Your task to perform on an android device: turn on airplane mode Image 0: 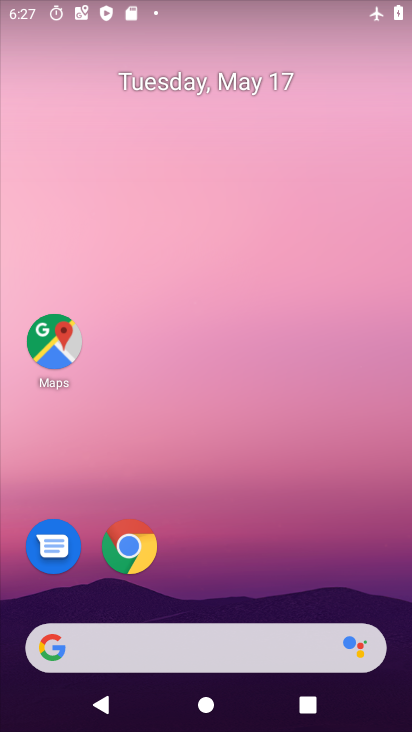
Step 0: click (185, 212)
Your task to perform on an android device: turn on airplane mode Image 1: 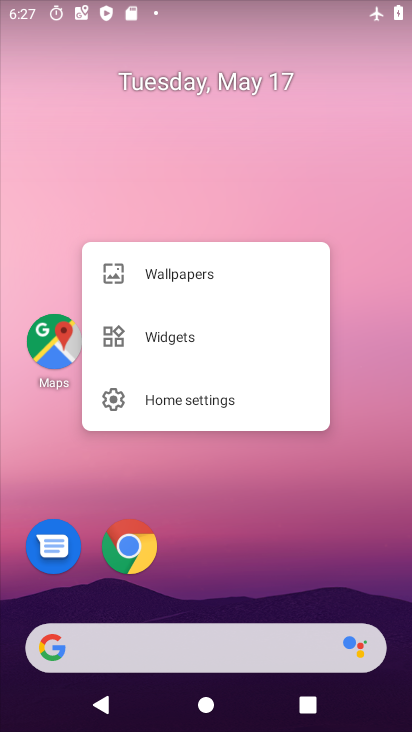
Step 1: drag from (224, 482) to (197, 259)
Your task to perform on an android device: turn on airplane mode Image 2: 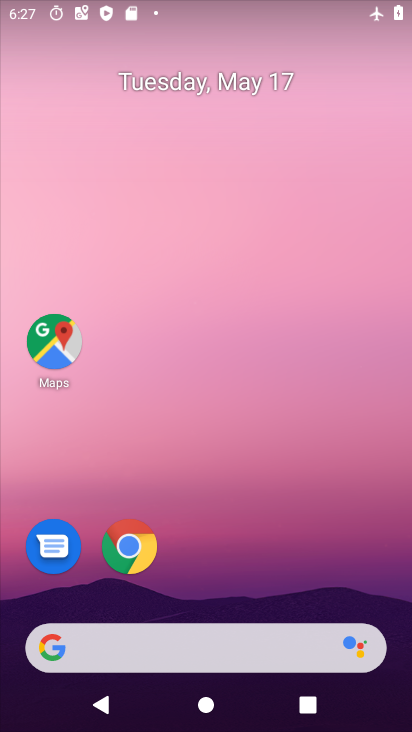
Step 2: drag from (207, 584) to (226, 124)
Your task to perform on an android device: turn on airplane mode Image 3: 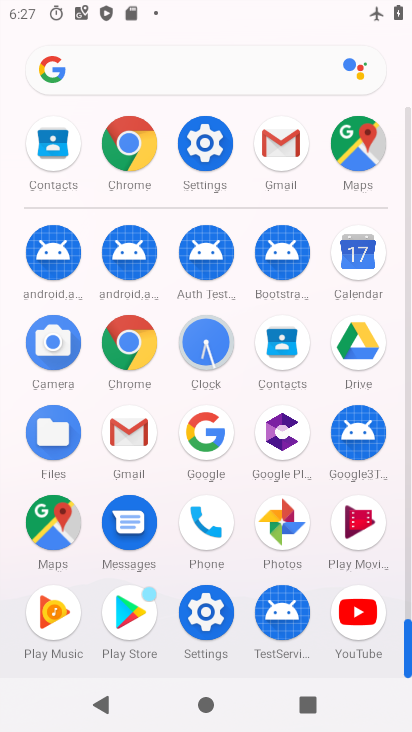
Step 3: click (210, 138)
Your task to perform on an android device: turn on airplane mode Image 4: 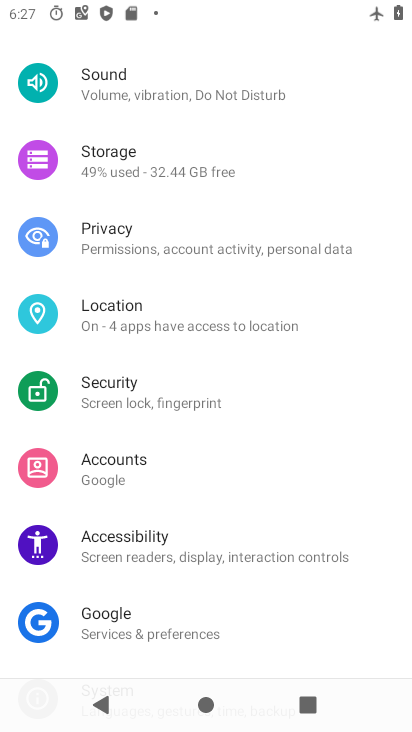
Step 4: drag from (191, 219) to (159, 459)
Your task to perform on an android device: turn on airplane mode Image 5: 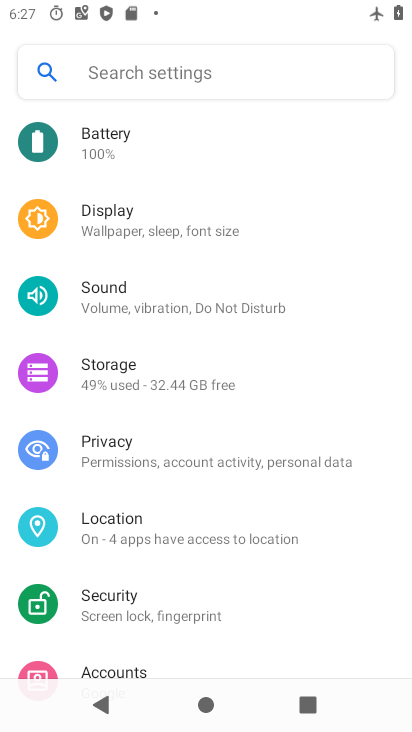
Step 5: drag from (221, 324) to (166, 512)
Your task to perform on an android device: turn on airplane mode Image 6: 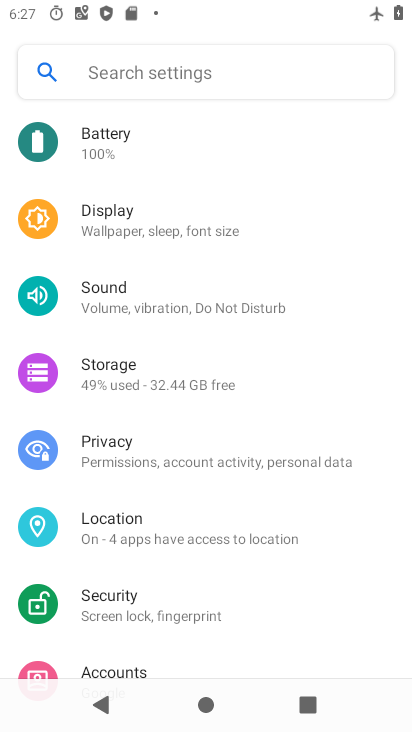
Step 6: drag from (185, 301) to (169, 516)
Your task to perform on an android device: turn on airplane mode Image 7: 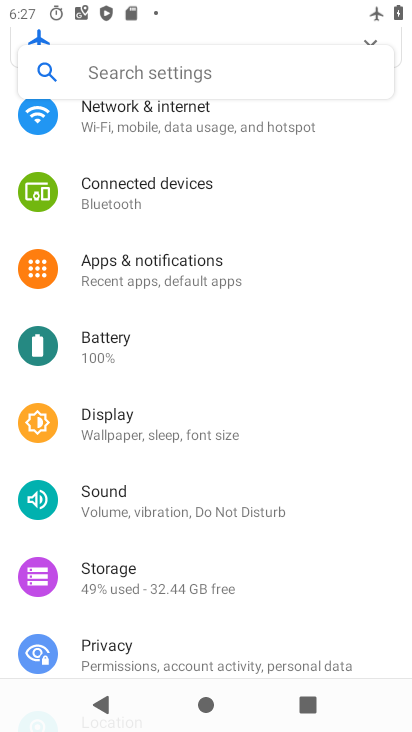
Step 7: click (165, 133)
Your task to perform on an android device: turn on airplane mode Image 8: 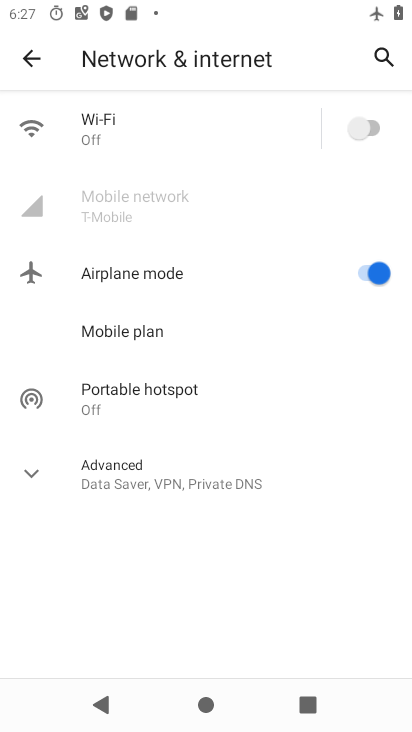
Step 8: task complete